Your task to perform on an android device: Open calendar and show me the third week of next month Image 0: 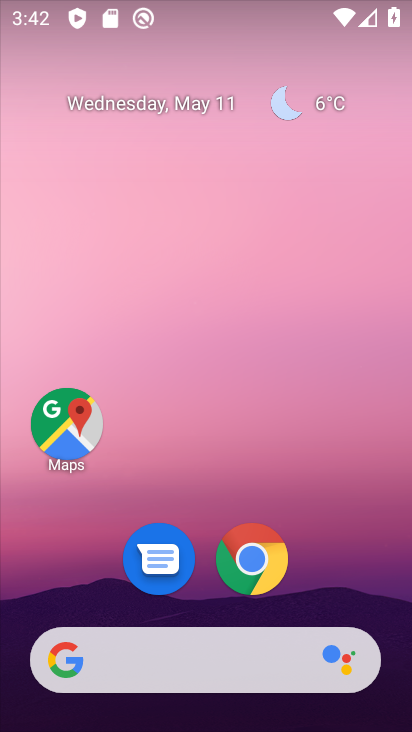
Step 0: drag from (317, 602) to (308, 117)
Your task to perform on an android device: Open calendar and show me the third week of next month Image 1: 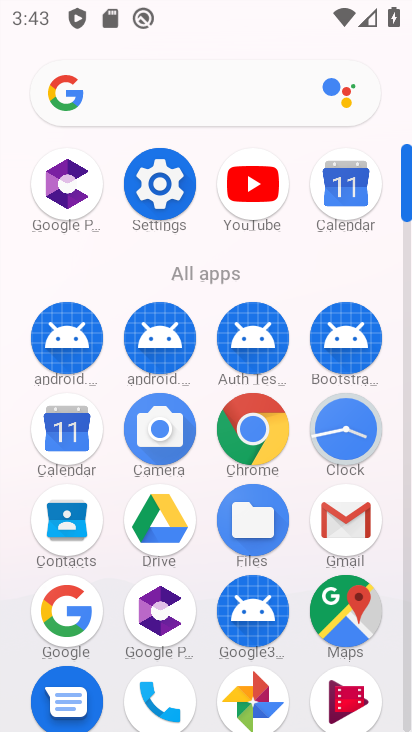
Step 1: click (42, 451)
Your task to perform on an android device: Open calendar and show me the third week of next month Image 2: 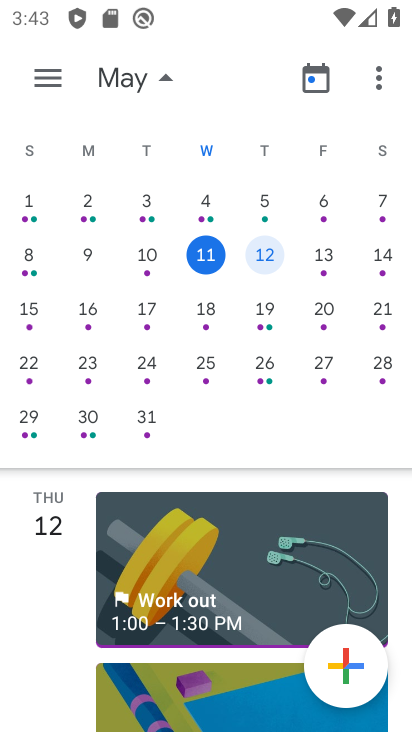
Step 2: drag from (373, 338) to (4, 415)
Your task to perform on an android device: Open calendar and show me the third week of next month Image 3: 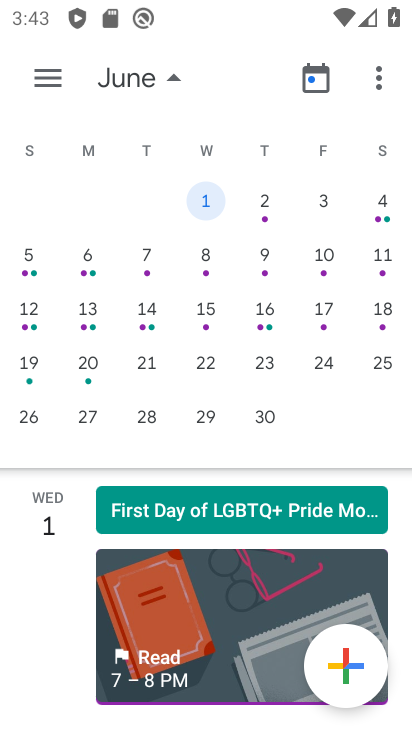
Step 3: click (147, 367)
Your task to perform on an android device: Open calendar and show me the third week of next month Image 4: 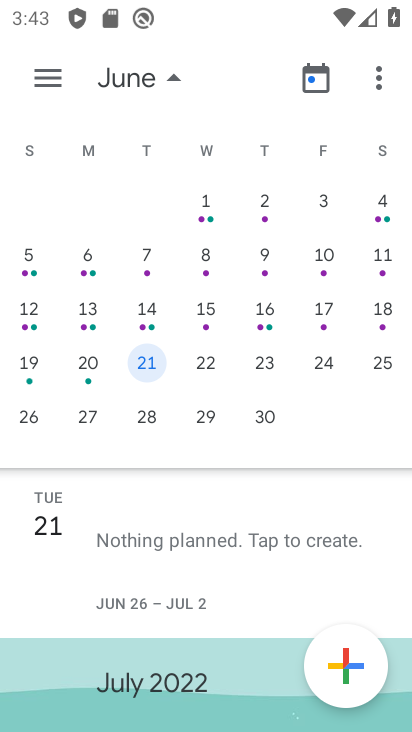
Step 4: task complete